Your task to perform on an android device: check google app version Image 0: 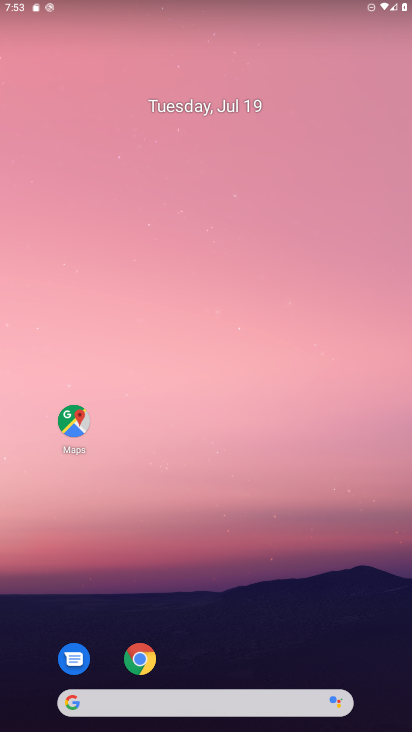
Step 0: drag from (258, 565) to (318, 51)
Your task to perform on an android device: check google app version Image 1: 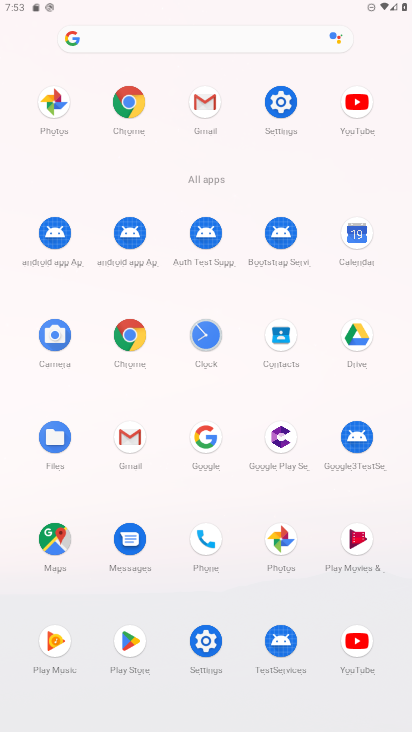
Step 1: click (209, 434)
Your task to perform on an android device: check google app version Image 2: 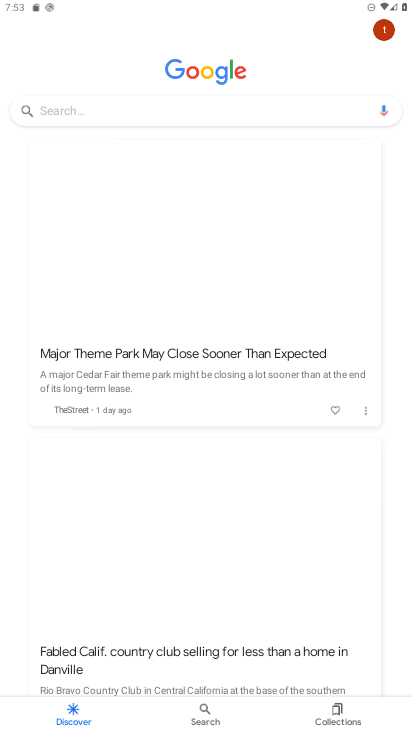
Step 2: click (394, 27)
Your task to perform on an android device: check google app version Image 3: 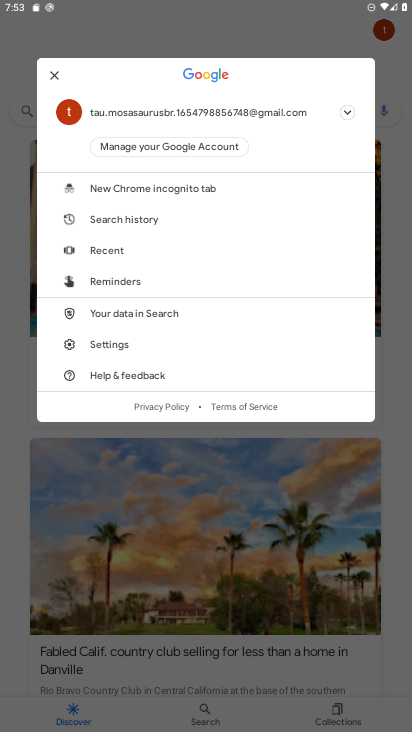
Step 3: click (103, 339)
Your task to perform on an android device: check google app version Image 4: 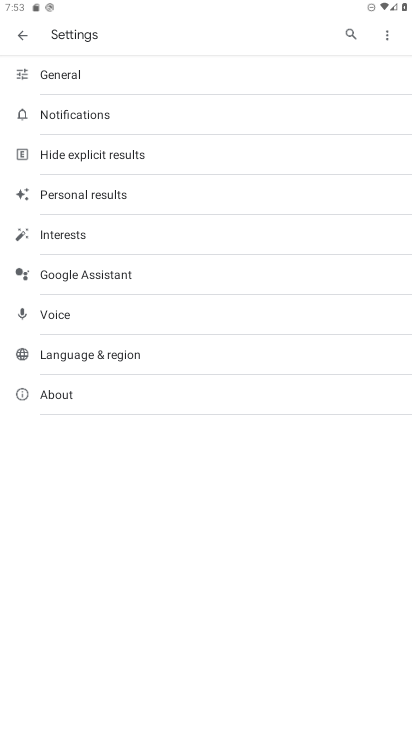
Step 4: click (72, 395)
Your task to perform on an android device: check google app version Image 5: 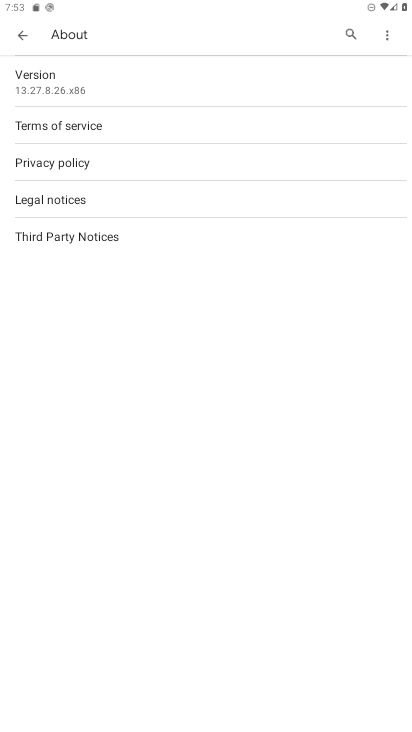
Step 5: click (64, 76)
Your task to perform on an android device: check google app version Image 6: 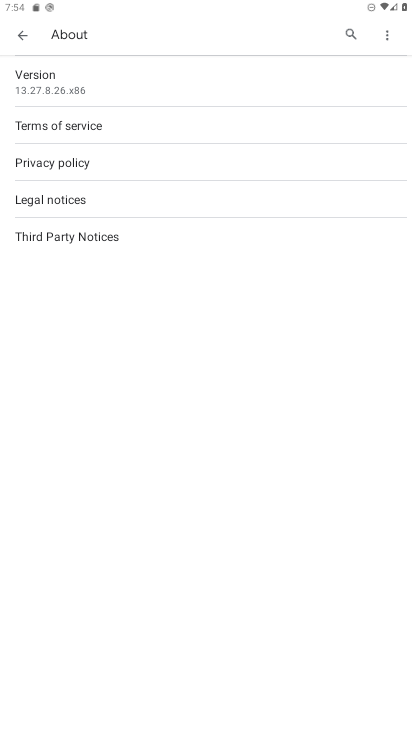
Step 6: task complete